Your task to perform on an android device: open wifi settings Image 0: 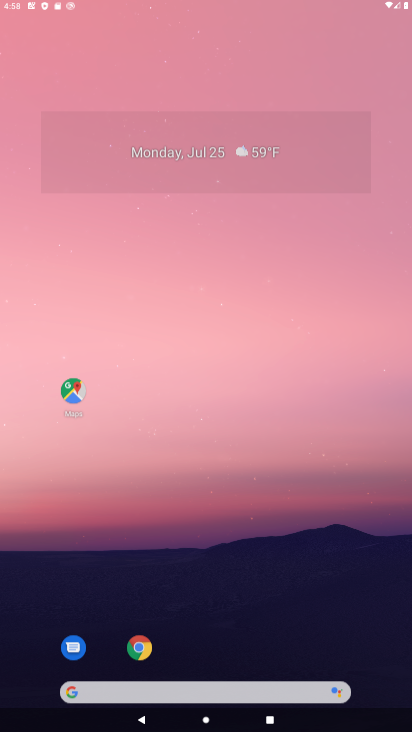
Step 0: drag from (60, 1) to (279, 9)
Your task to perform on an android device: open wifi settings Image 1: 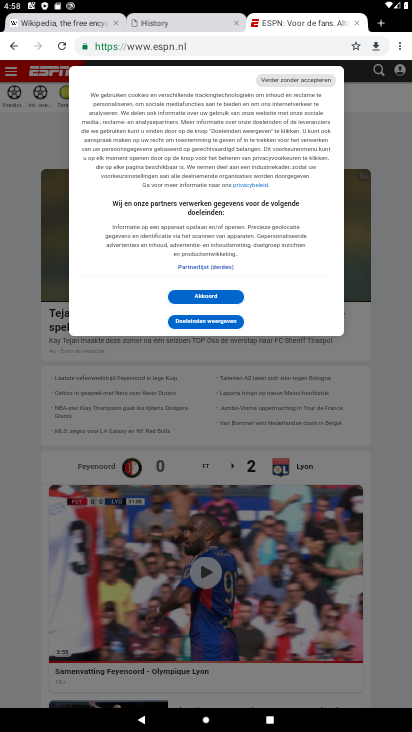
Step 1: press home button
Your task to perform on an android device: open wifi settings Image 2: 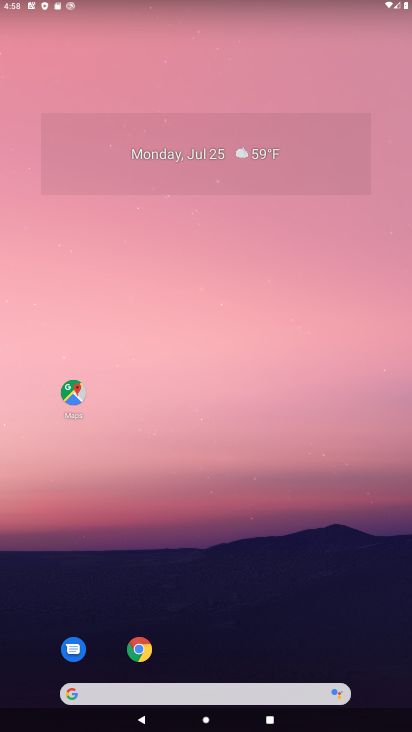
Step 2: drag from (202, 210) to (72, 0)
Your task to perform on an android device: open wifi settings Image 3: 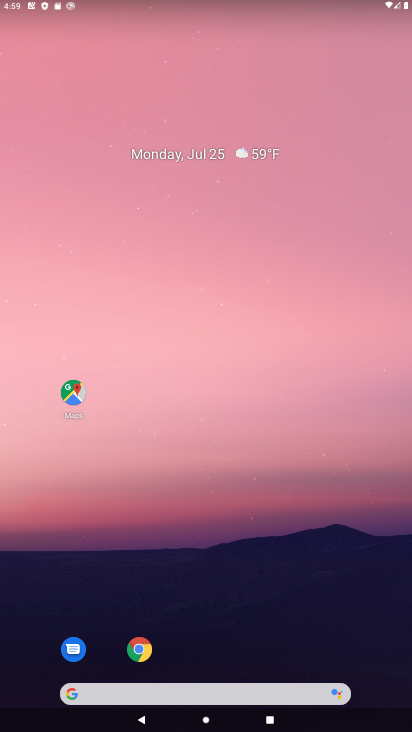
Step 3: drag from (234, 450) to (66, 0)
Your task to perform on an android device: open wifi settings Image 4: 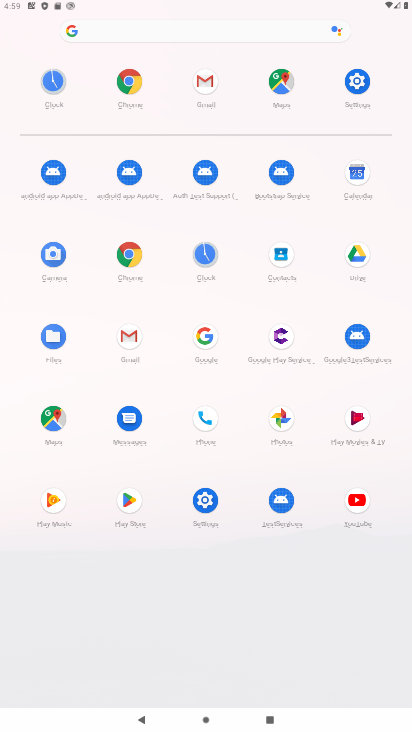
Step 4: click (357, 78)
Your task to perform on an android device: open wifi settings Image 5: 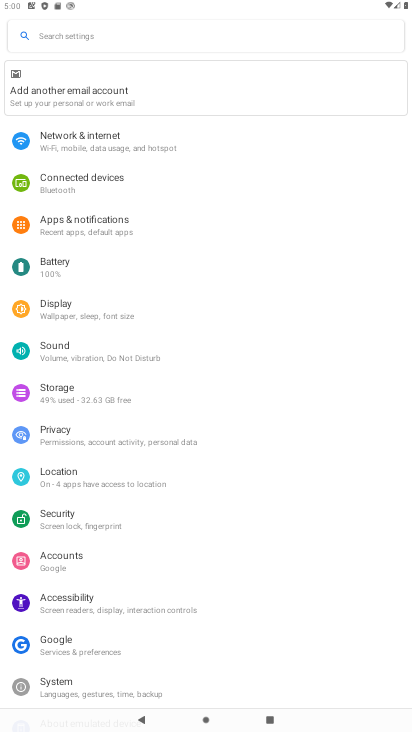
Step 5: click (71, 143)
Your task to perform on an android device: open wifi settings Image 6: 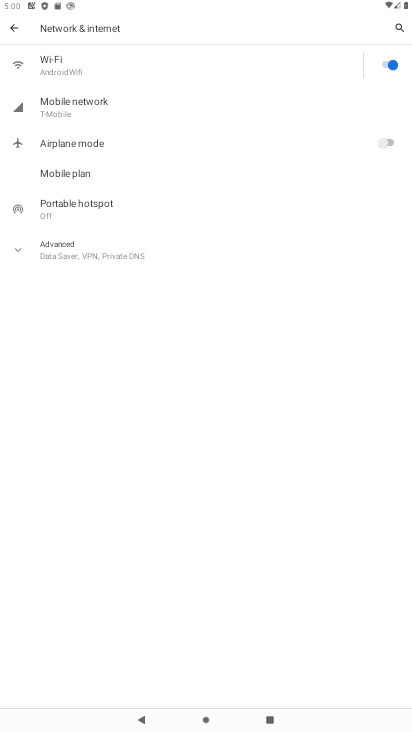
Step 6: click (86, 54)
Your task to perform on an android device: open wifi settings Image 7: 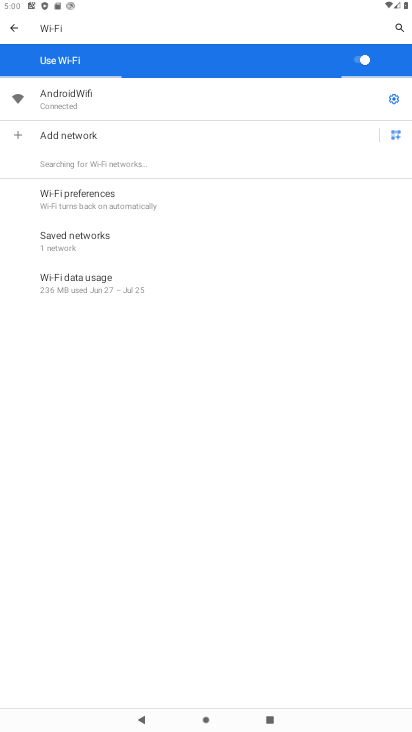
Step 7: task complete